Your task to perform on an android device: Search for Mexican restaurants on Maps Image 0: 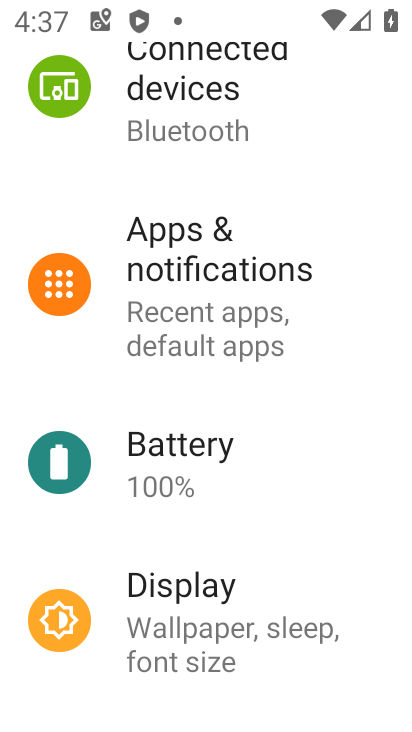
Step 0: press back button
Your task to perform on an android device: Search for Mexican restaurants on Maps Image 1: 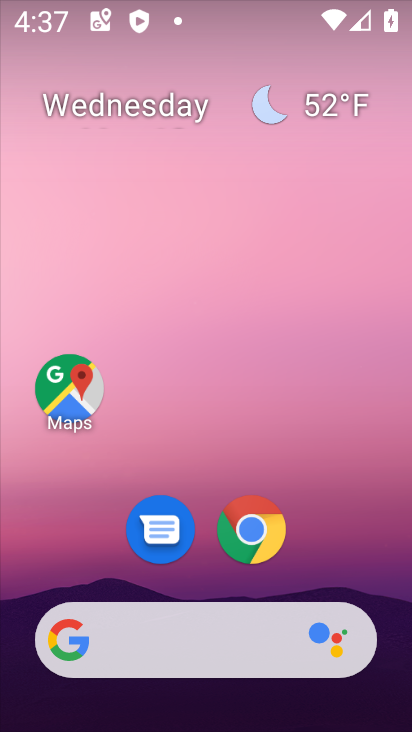
Step 1: click (72, 392)
Your task to perform on an android device: Search for Mexican restaurants on Maps Image 2: 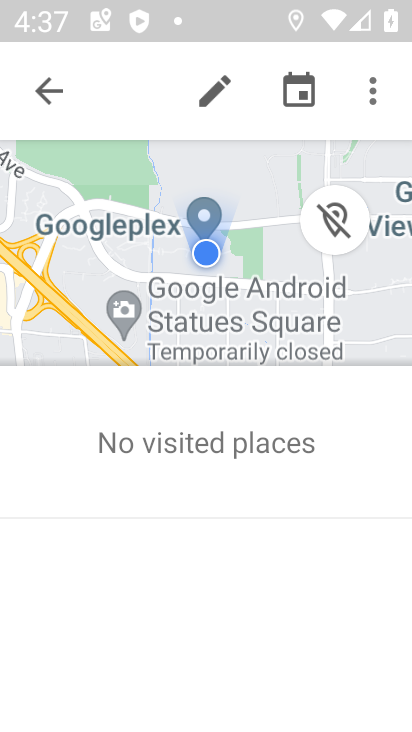
Step 2: press back button
Your task to perform on an android device: Search for Mexican restaurants on Maps Image 3: 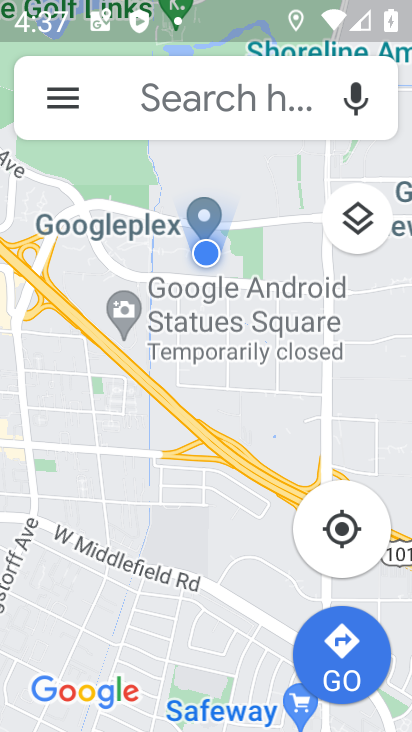
Step 3: click (182, 100)
Your task to perform on an android device: Search for Mexican restaurants on Maps Image 4: 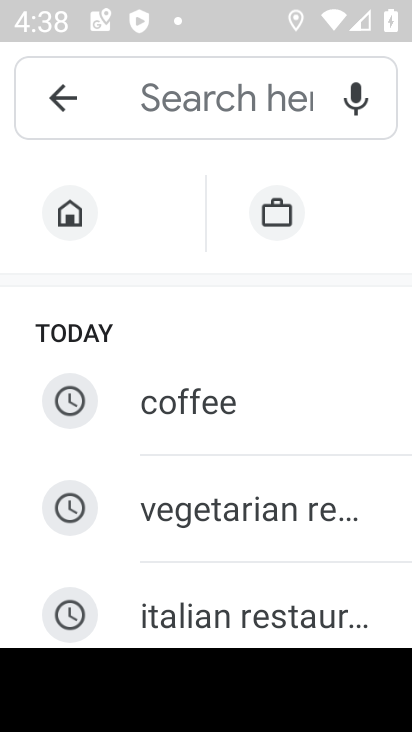
Step 4: type "Mexican restaurants"
Your task to perform on an android device: Search for Mexican restaurants on Maps Image 5: 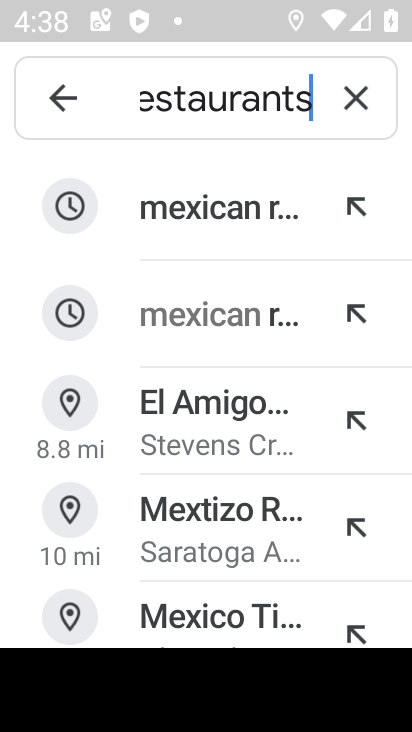
Step 5: click (213, 216)
Your task to perform on an android device: Search for Mexican restaurants on Maps Image 6: 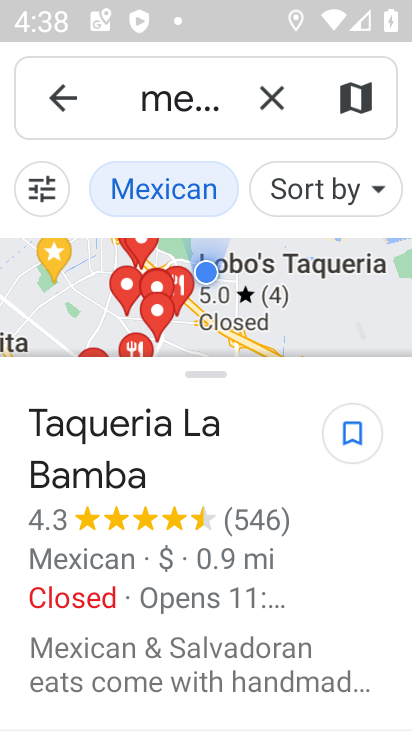
Step 6: task complete